Your task to perform on an android device: Open privacy settings Image 0: 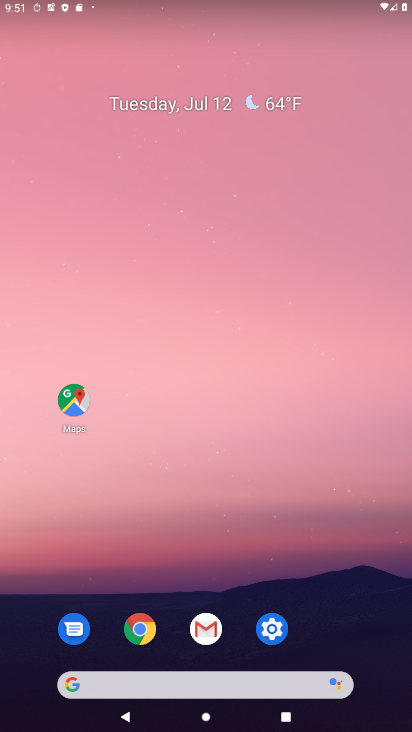
Step 0: click (285, 624)
Your task to perform on an android device: Open privacy settings Image 1: 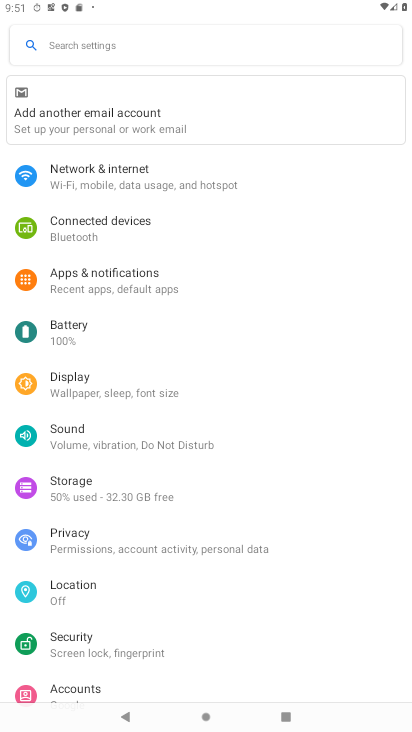
Step 1: click (124, 536)
Your task to perform on an android device: Open privacy settings Image 2: 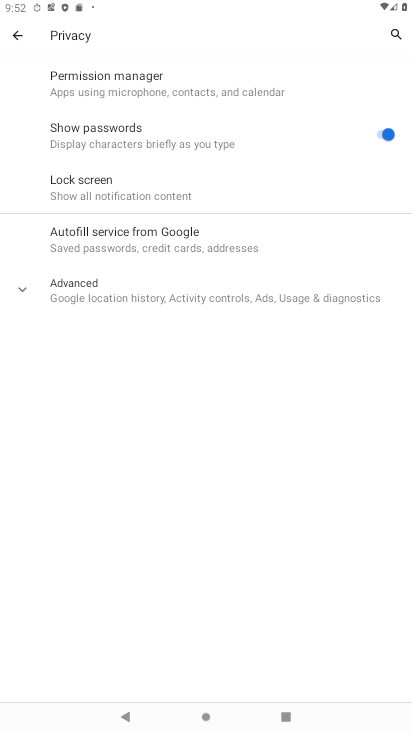
Step 2: task complete